Your task to perform on an android device: Search for vegetarian restaurants on Maps Image 0: 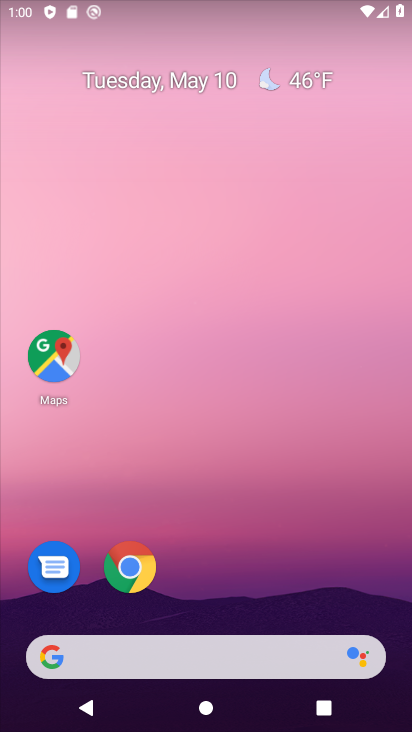
Step 0: click (49, 352)
Your task to perform on an android device: Search for vegetarian restaurants on Maps Image 1: 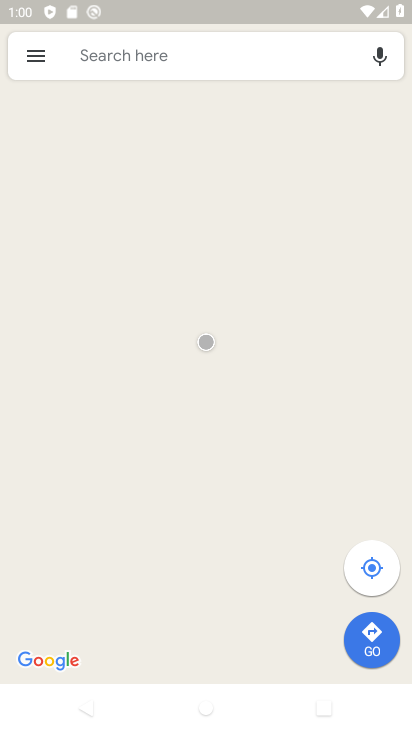
Step 1: click (176, 52)
Your task to perform on an android device: Search for vegetarian restaurants on Maps Image 2: 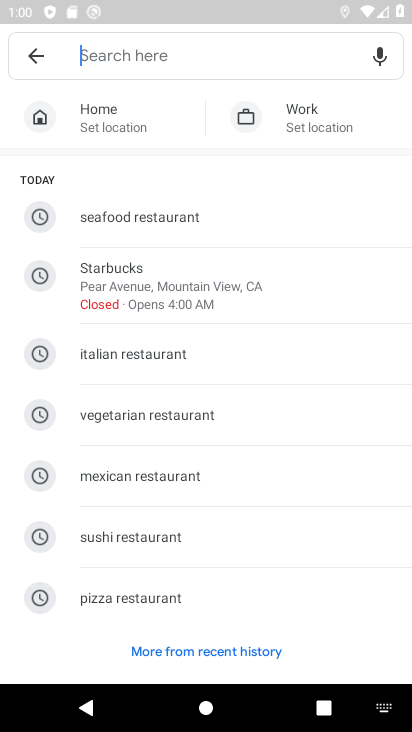
Step 2: click (170, 433)
Your task to perform on an android device: Search for vegetarian restaurants on Maps Image 3: 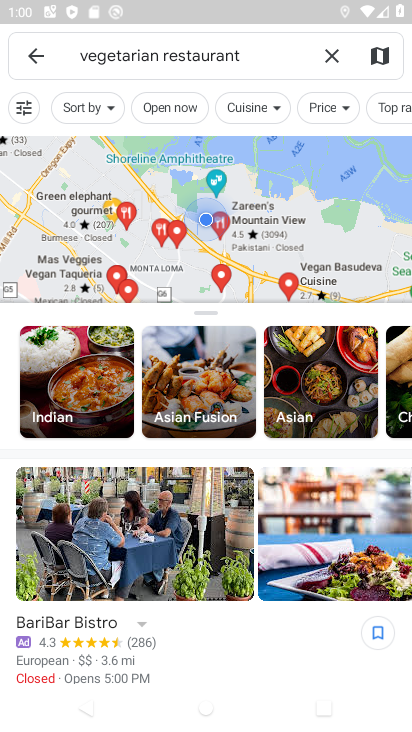
Step 3: task complete